Your task to perform on an android device: toggle sleep mode Image 0: 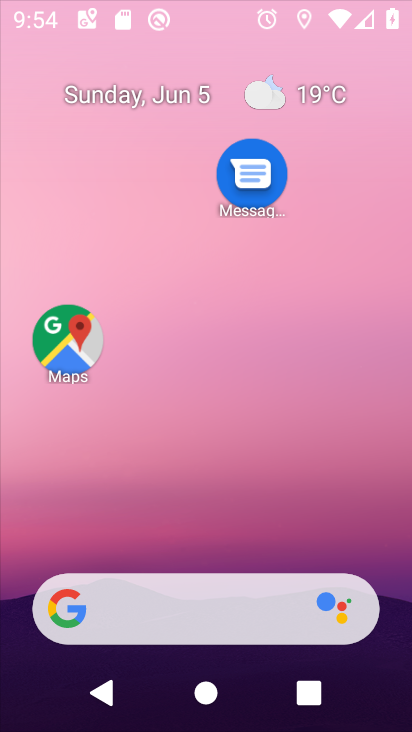
Step 0: drag from (219, 570) to (176, 142)
Your task to perform on an android device: toggle sleep mode Image 1: 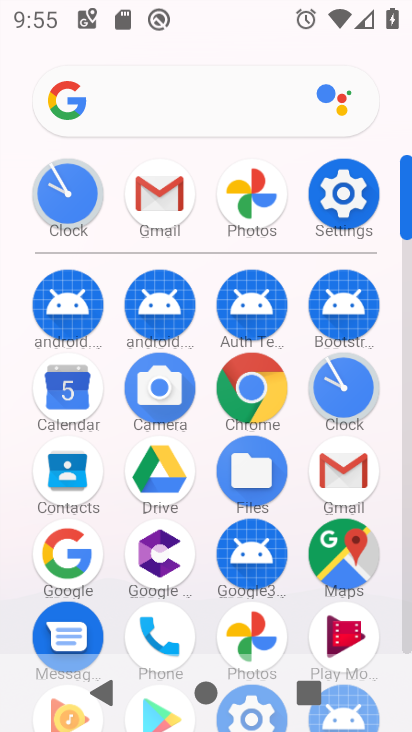
Step 1: click (348, 204)
Your task to perform on an android device: toggle sleep mode Image 2: 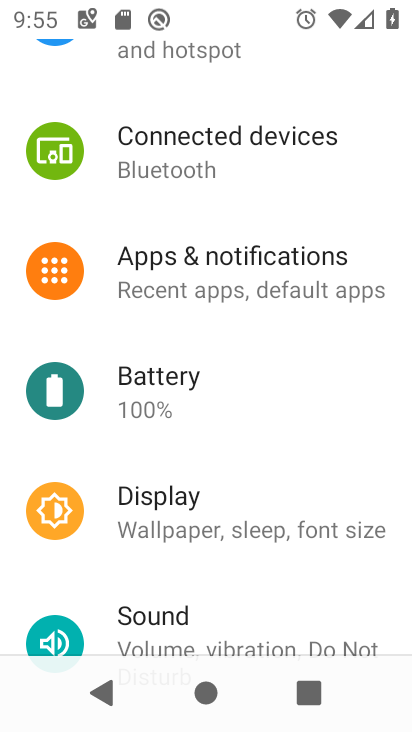
Step 2: drag from (243, 509) to (317, 12)
Your task to perform on an android device: toggle sleep mode Image 3: 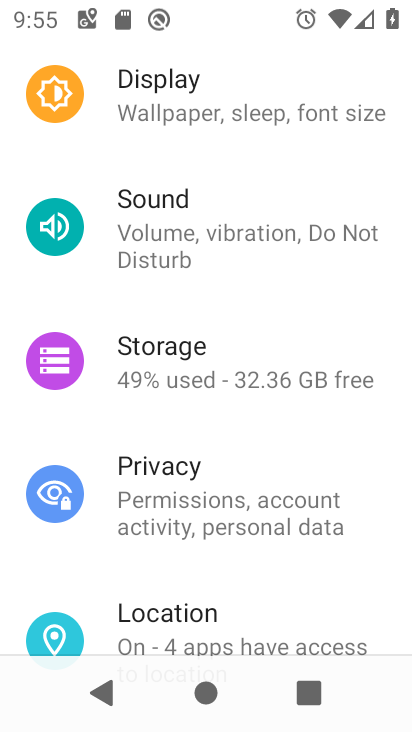
Step 3: click (175, 109)
Your task to perform on an android device: toggle sleep mode Image 4: 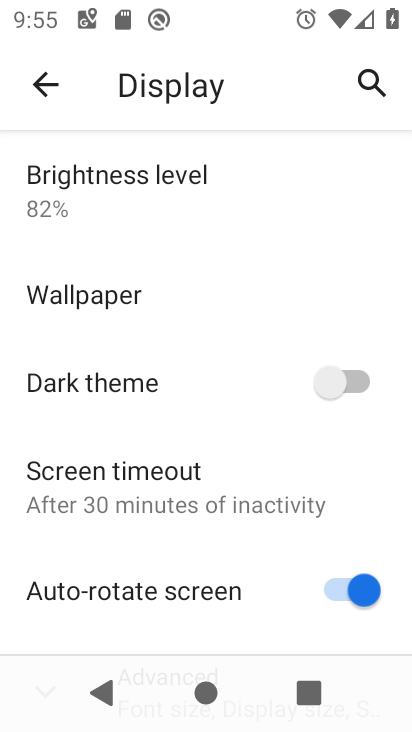
Step 4: drag from (225, 522) to (246, 227)
Your task to perform on an android device: toggle sleep mode Image 5: 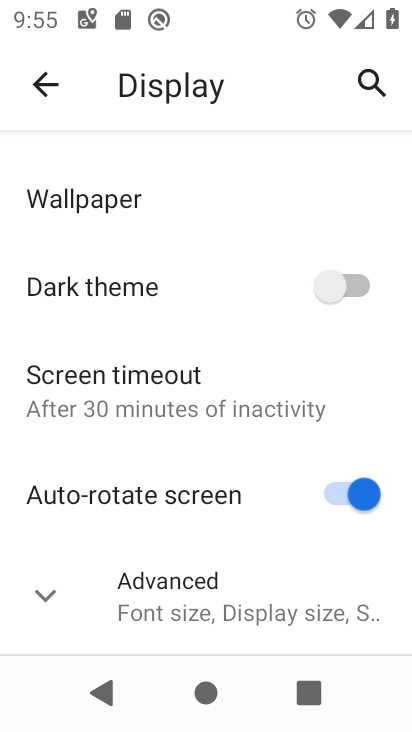
Step 5: click (179, 394)
Your task to perform on an android device: toggle sleep mode Image 6: 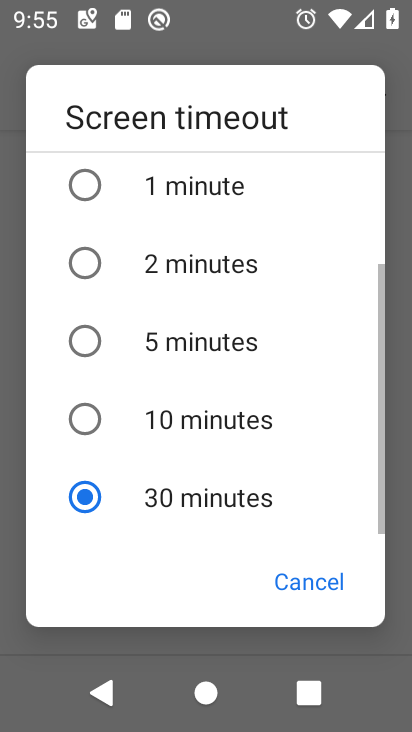
Step 6: task complete